Your task to perform on an android device: When is my next appointment? Image 0: 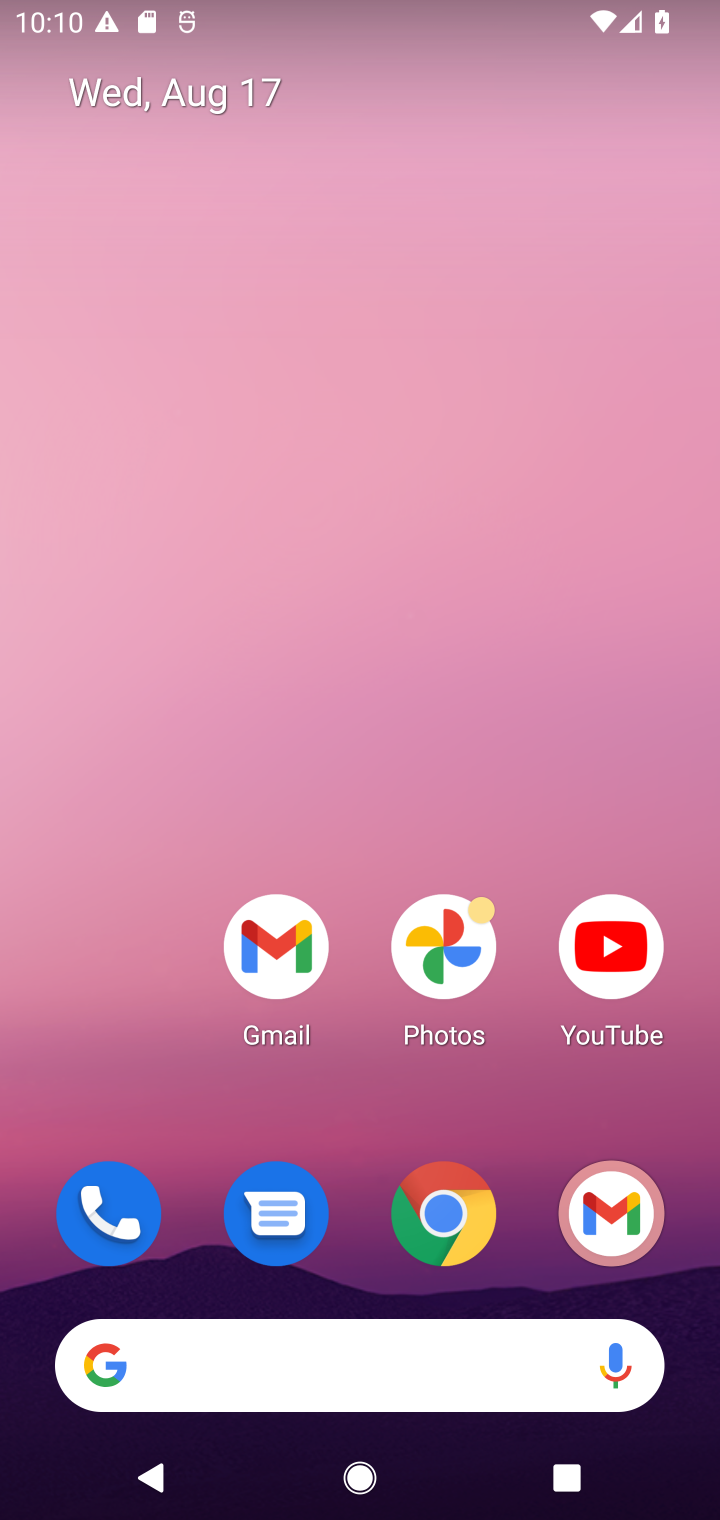
Step 0: drag from (525, 1243) to (311, 52)
Your task to perform on an android device: When is my next appointment? Image 1: 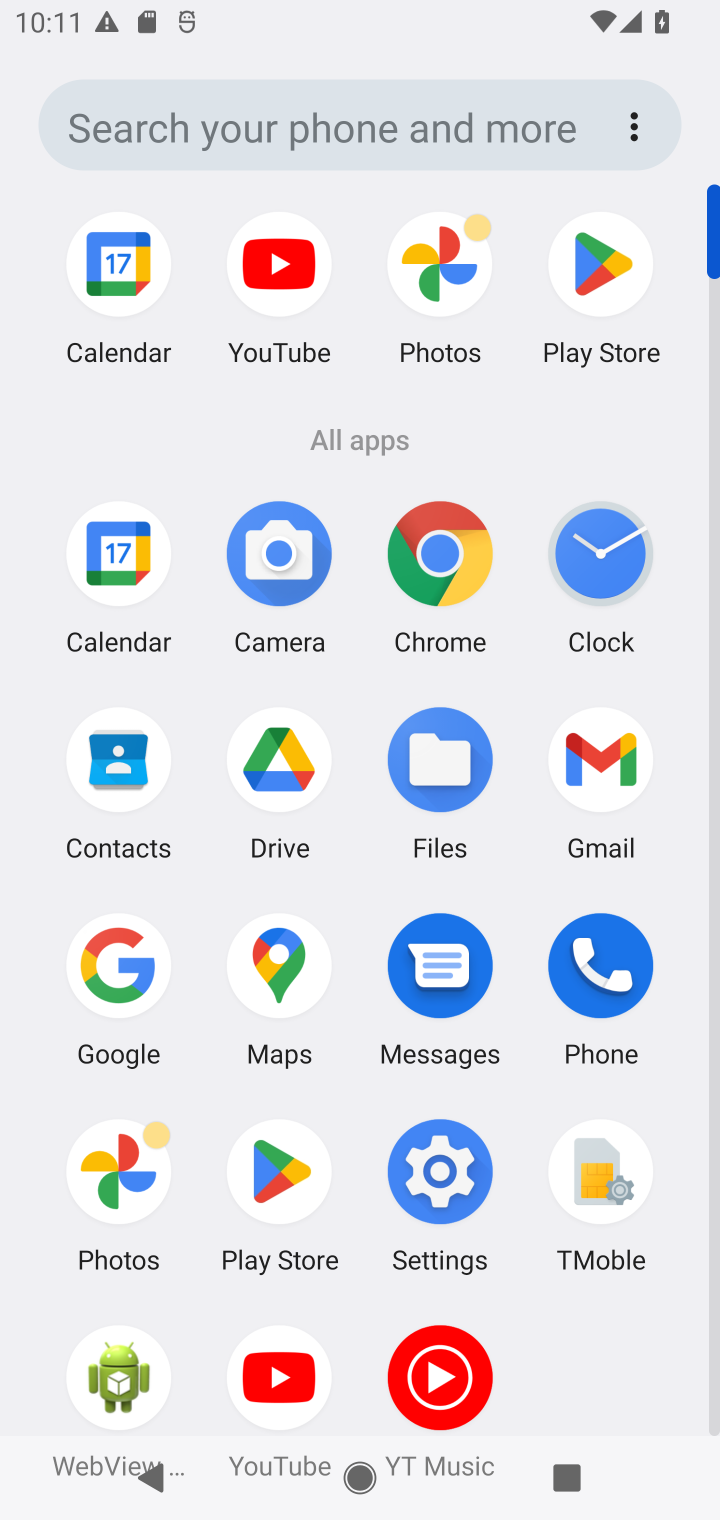
Step 1: click (108, 559)
Your task to perform on an android device: When is my next appointment? Image 2: 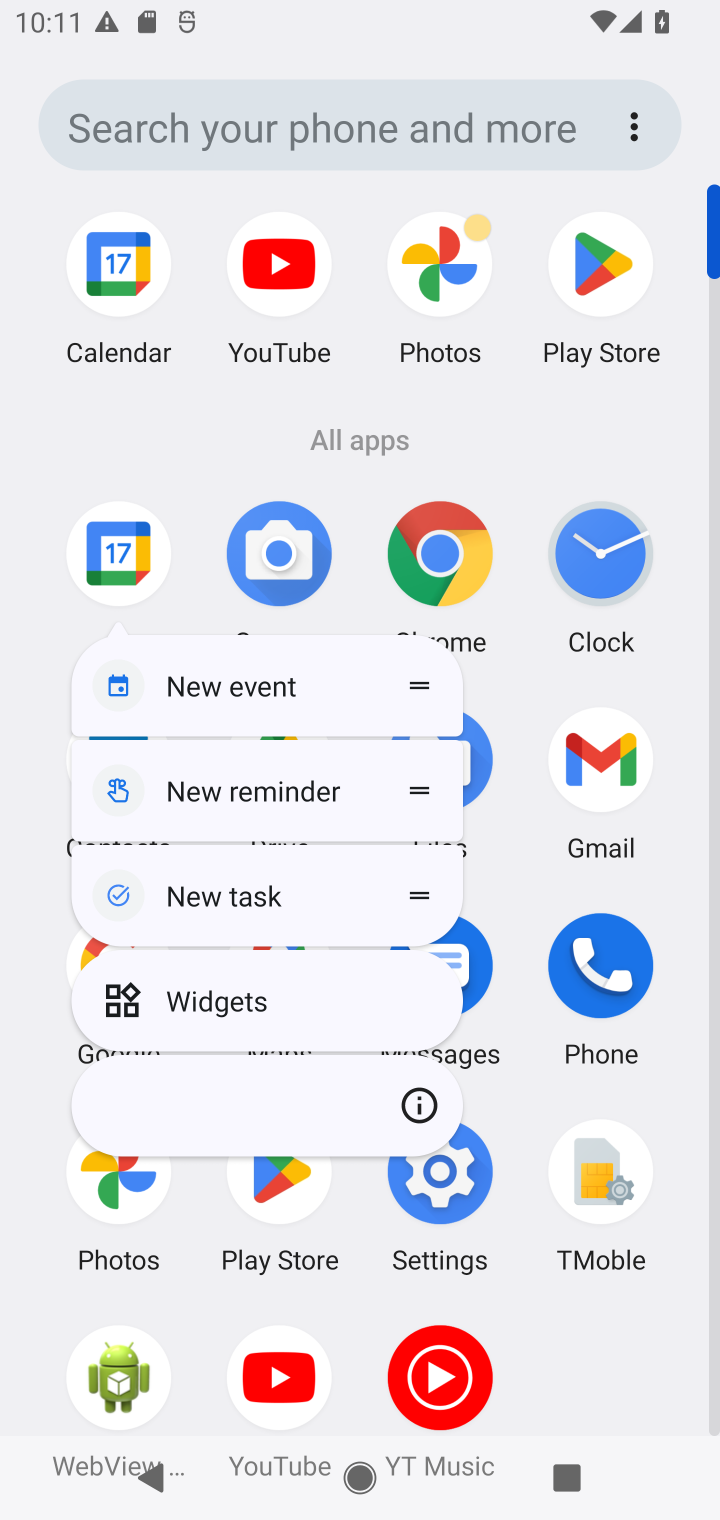
Step 2: click (108, 559)
Your task to perform on an android device: When is my next appointment? Image 3: 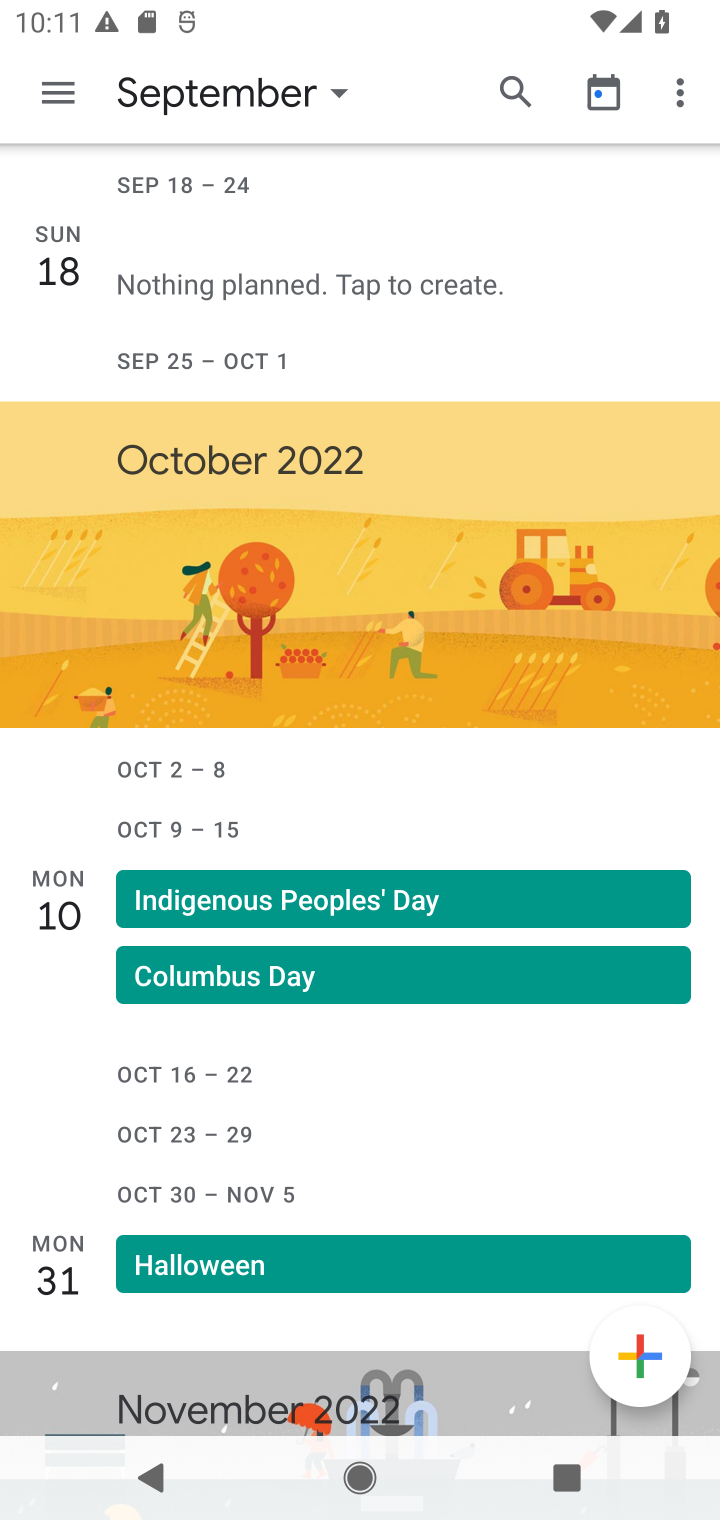
Step 3: task complete